Your task to perform on an android device: open sync settings in chrome Image 0: 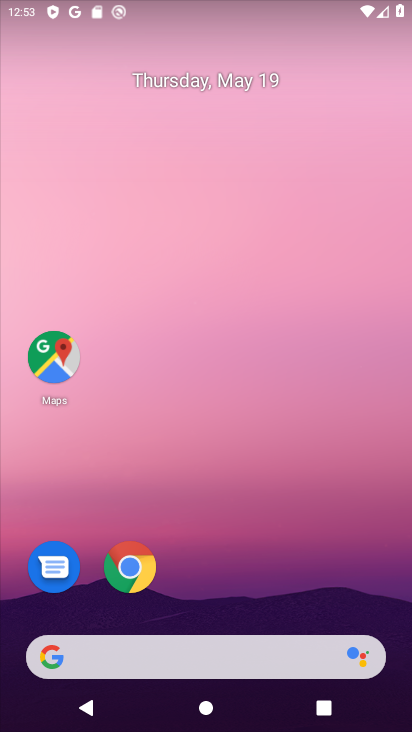
Step 0: drag from (310, 577) to (232, 4)
Your task to perform on an android device: open sync settings in chrome Image 1: 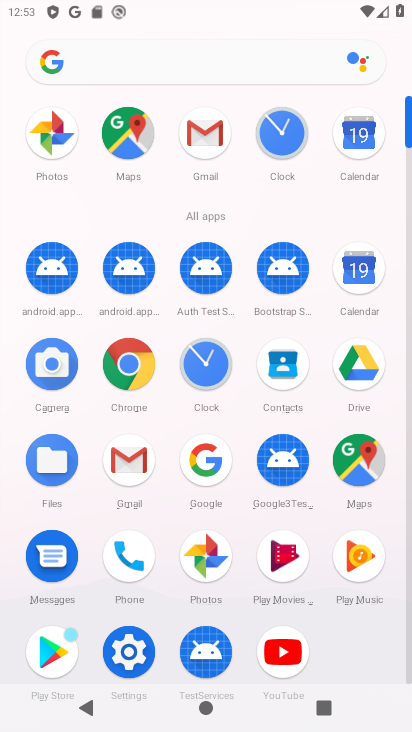
Step 1: click (145, 372)
Your task to perform on an android device: open sync settings in chrome Image 2: 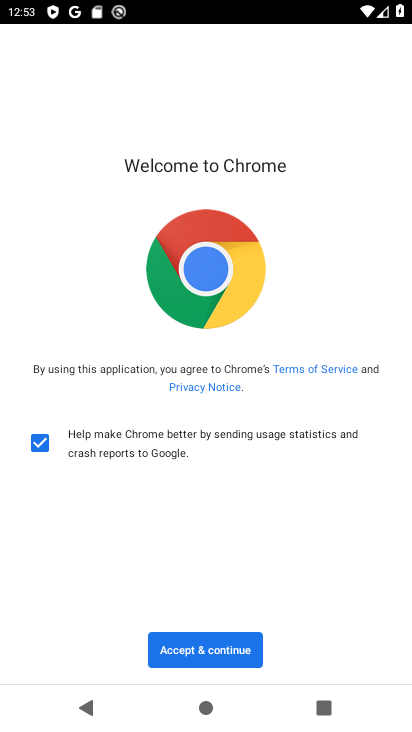
Step 2: click (193, 662)
Your task to perform on an android device: open sync settings in chrome Image 3: 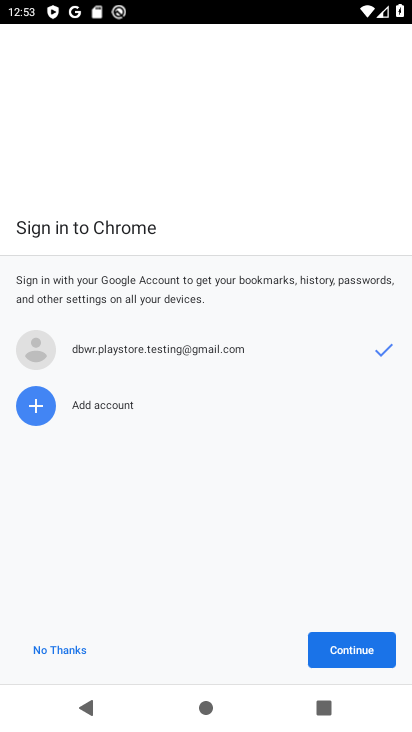
Step 3: click (51, 644)
Your task to perform on an android device: open sync settings in chrome Image 4: 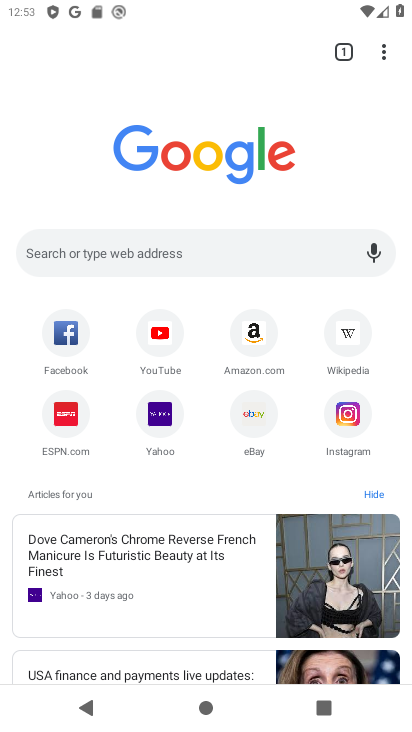
Step 4: click (385, 55)
Your task to perform on an android device: open sync settings in chrome Image 5: 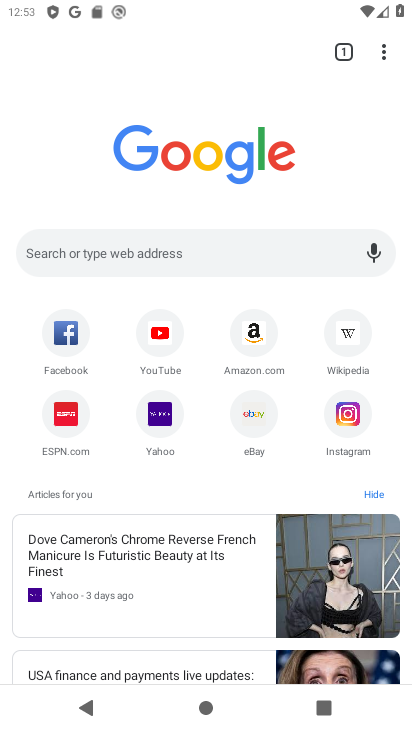
Step 5: drag from (386, 55) to (216, 447)
Your task to perform on an android device: open sync settings in chrome Image 6: 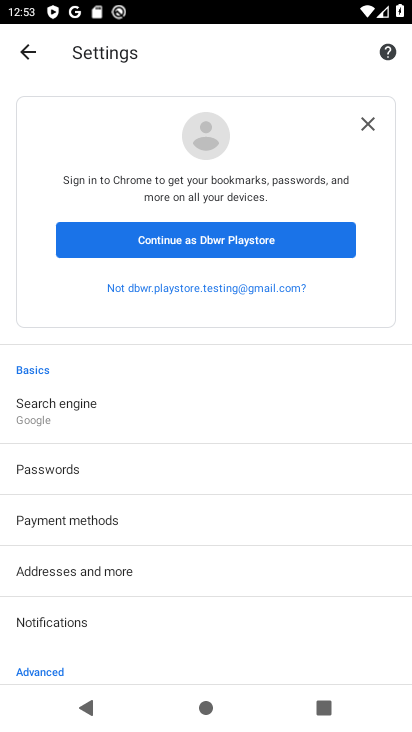
Step 6: drag from (163, 641) to (169, 290)
Your task to perform on an android device: open sync settings in chrome Image 7: 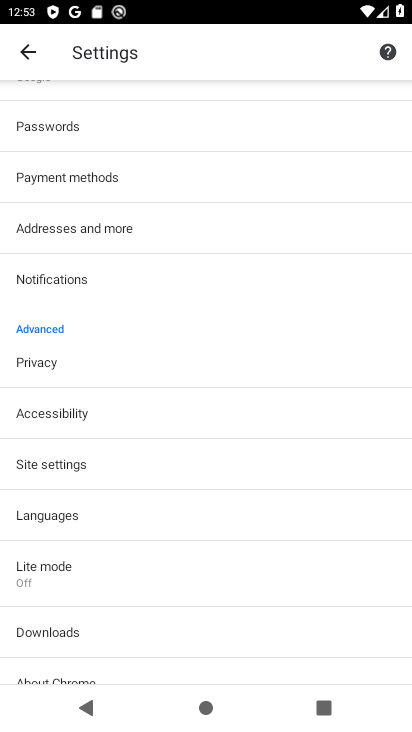
Step 7: click (138, 462)
Your task to perform on an android device: open sync settings in chrome Image 8: 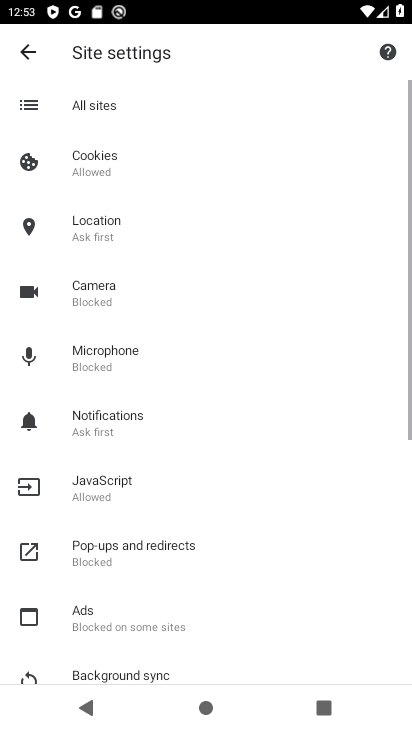
Step 8: drag from (216, 576) to (167, 139)
Your task to perform on an android device: open sync settings in chrome Image 9: 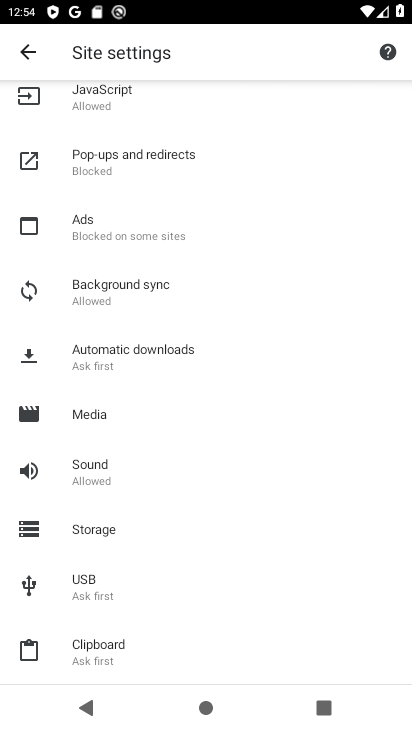
Step 9: click (138, 298)
Your task to perform on an android device: open sync settings in chrome Image 10: 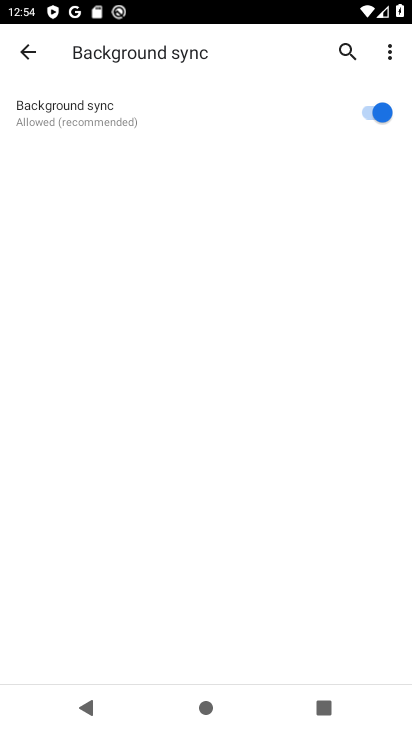
Step 10: task complete